Your task to perform on an android device: Show me recent news Image 0: 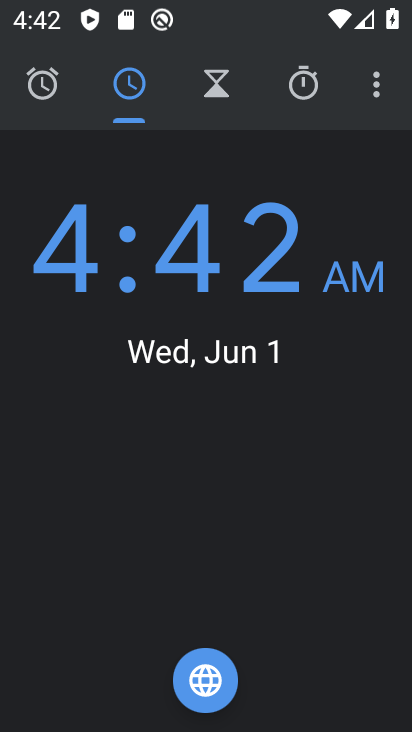
Step 0: press home button
Your task to perform on an android device: Show me recent news Image 1: 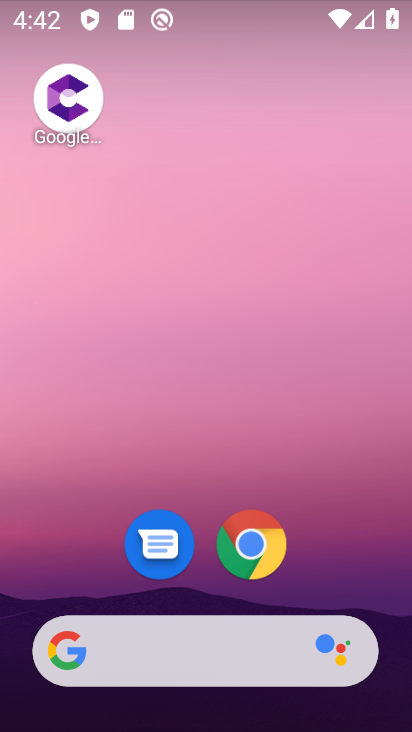
Step 1: task complete